Your task to perform on an android device: turn on location history Image 0: 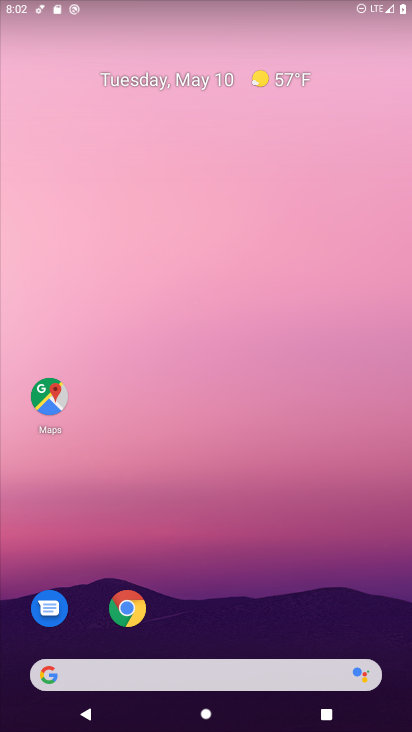
Step 0: drag from (316, 603) to (263, 101)
Your task to perform on an android device: turn on location history Image 1: 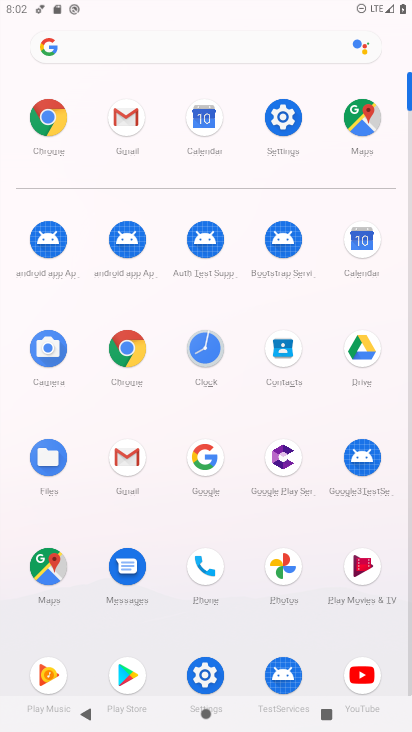
Step 1: click (289, 122)
Your task to perform on an android device: turn on location history Image 2: 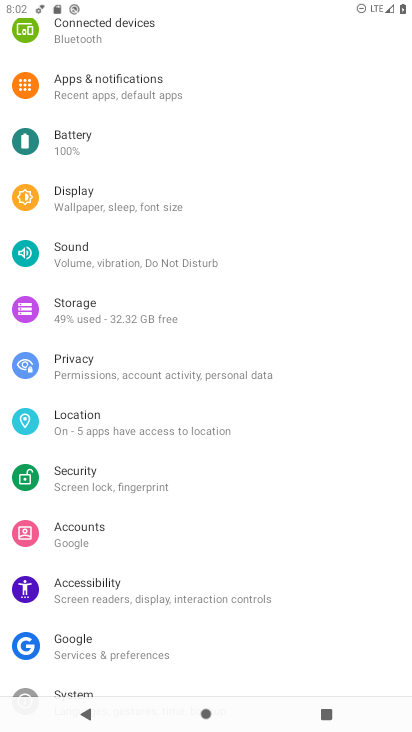
Step 2: click (105, 421)
Your task to perform on an android device: turn on location history Image 3: 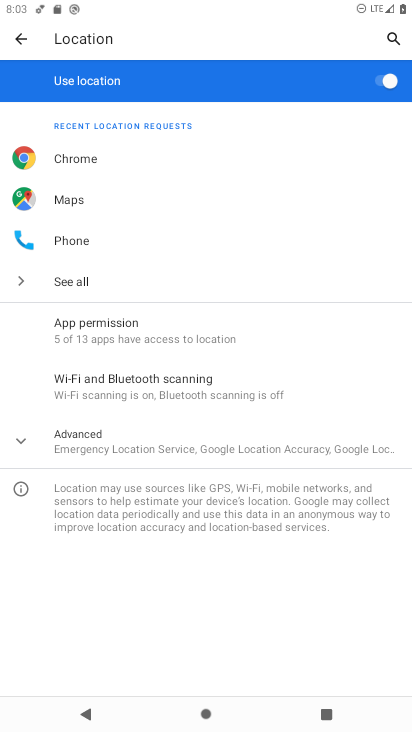
Step 3: click (109, 422)
Your task to perform on an android device: turn on location history Image 4: 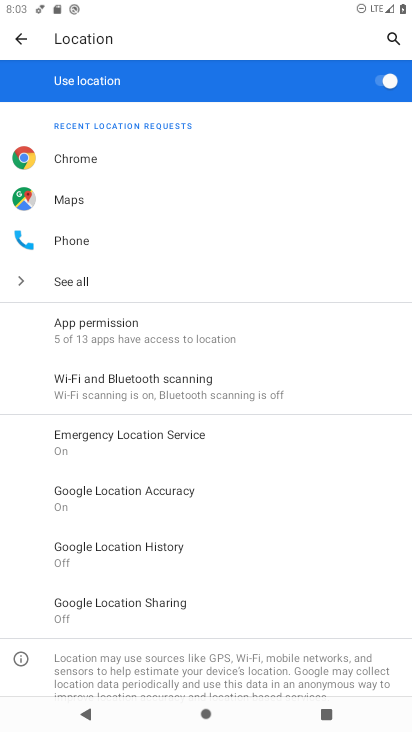
Step 4: click (187, 554)
Your task to perform on an android device: turn on location history Image 5: 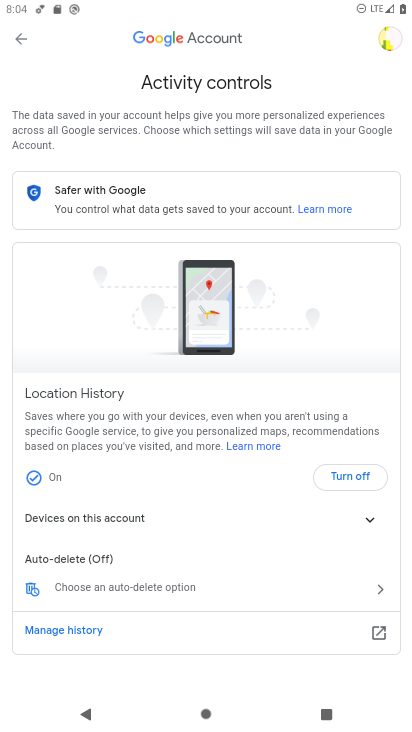
Step 5: click (360, 485)
Your task to perform on an android device: turn on location history Image 6: 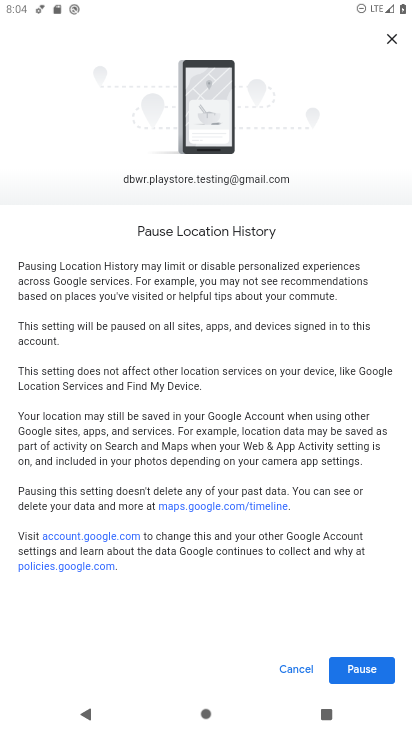
Step 6: task complete